Your task to perform on an android device: turn off improve location accuracy Image 0: 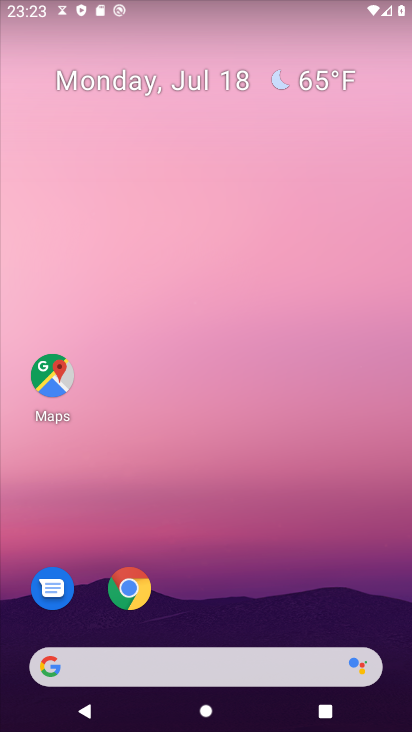
Step 0: press home button
Your task to perform on an android device: turn off improve location accuracy Image 1: 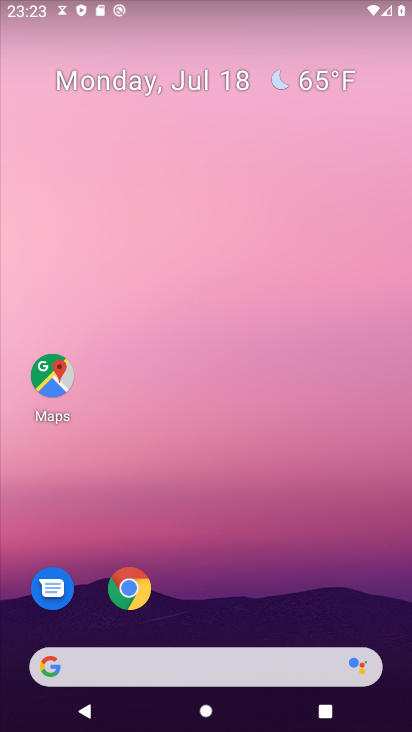
Step 1: drag from (267, 461) to (239, 24)
Your task to perform on an android device: turn off improve location accuracy Image 2: 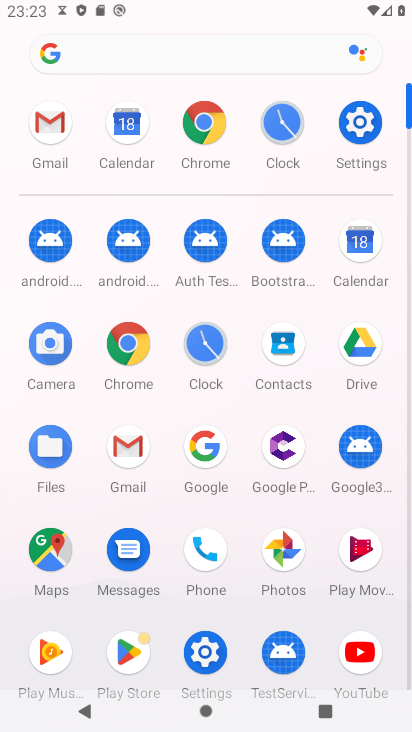
Step 2: click (353, 120)
Your task to perform on an android device: turn off improve location accuracy Image 3: 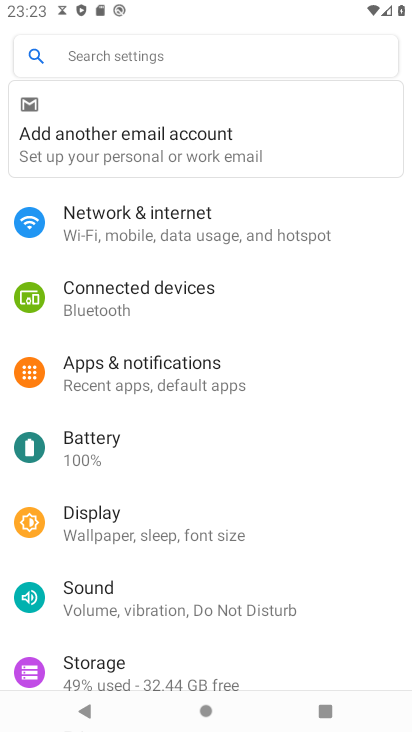
Step 3: drag from (147, 647) to (181, 226)
Your task to perform on an android device: turn off improve location accuracy Image 4: 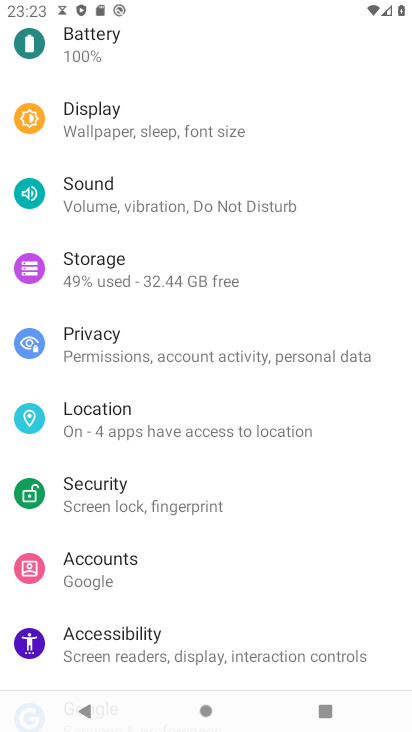
Step 4: click (169, 425)
Your task to perform on an android device: turn off improve location accuracy Image 5: 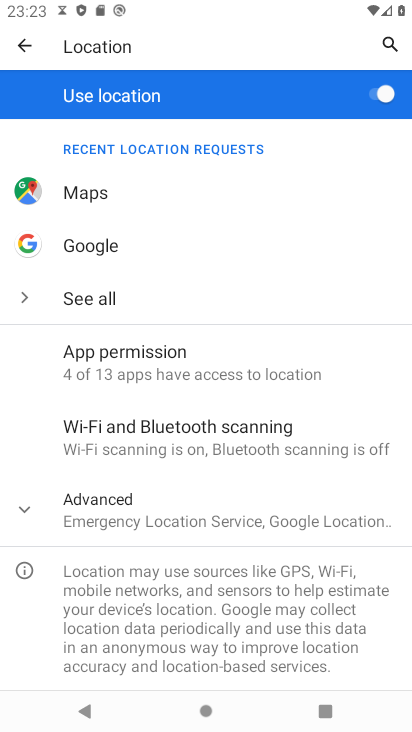
Step 5: click (24, 507)
Your task to perform on an android device: turn off improve location accuracy Image 6: 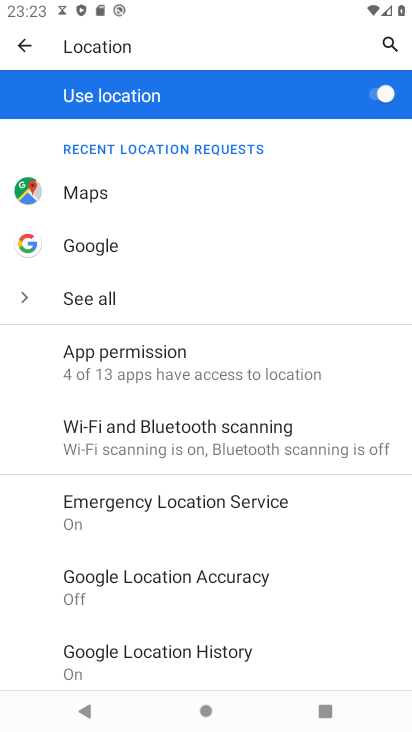
Step 6: click (220, 583)
Your task to perform on an android device: turn off improve location accuracy Image 7: 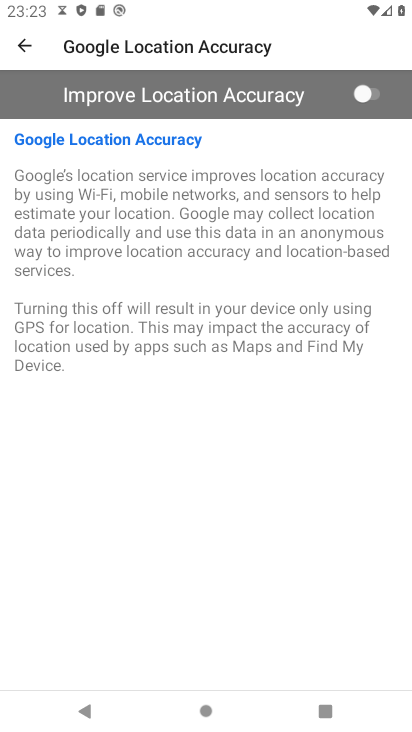
Step 7: task complete